Your task to perform on an android device: Go to location settings Image 0: 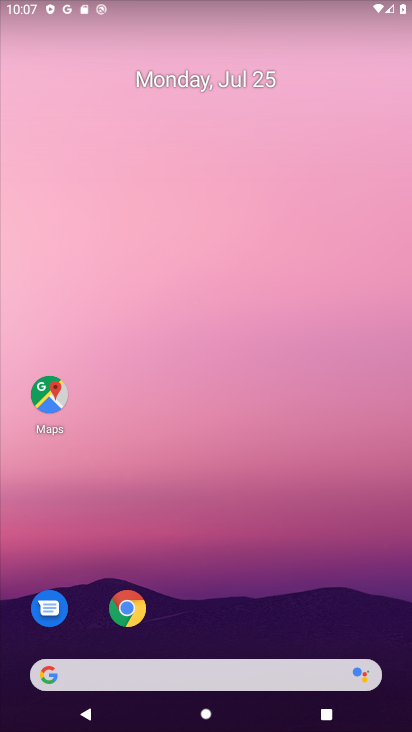
Step 0: drag from (308, 618) to (309, 167)
Your task to perform on an android device: Go to location settings Image 1: 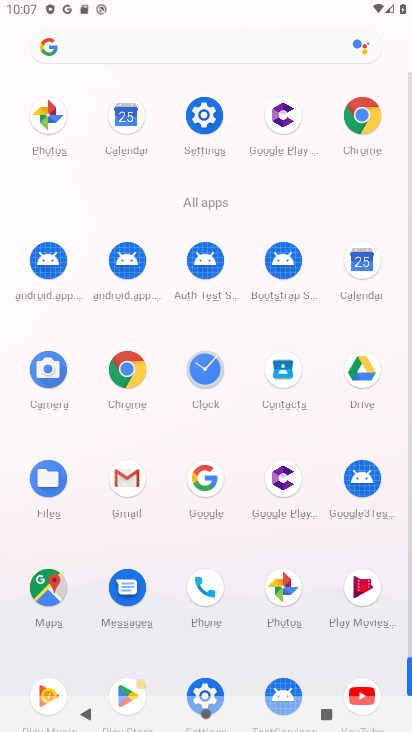
Step 1: click (213, 112)
Your task to perform on an android device: Go to location settings Image 2: 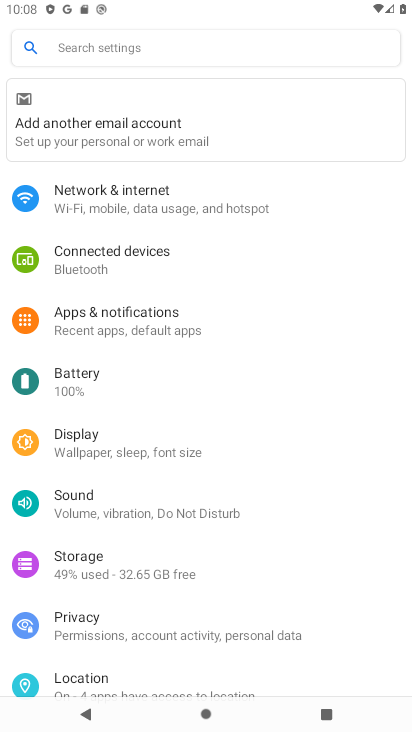
Step 2: click (102, 678)
Your task to perform on an android device: Go to location settings Image 3: 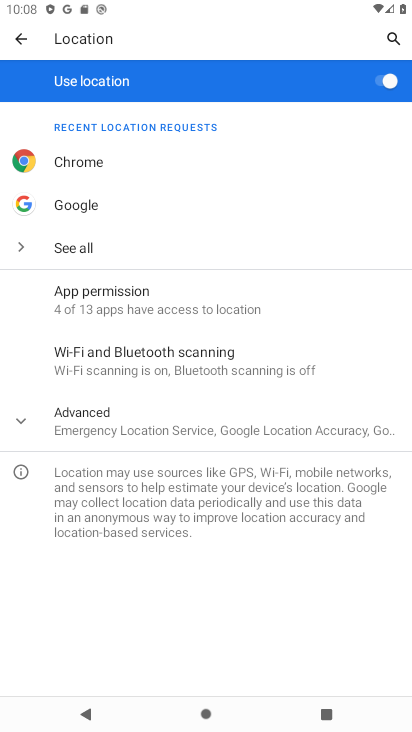
Step 3: task complete